Your task to perform on an android device: visit the assistant section in the google photos Image 0: 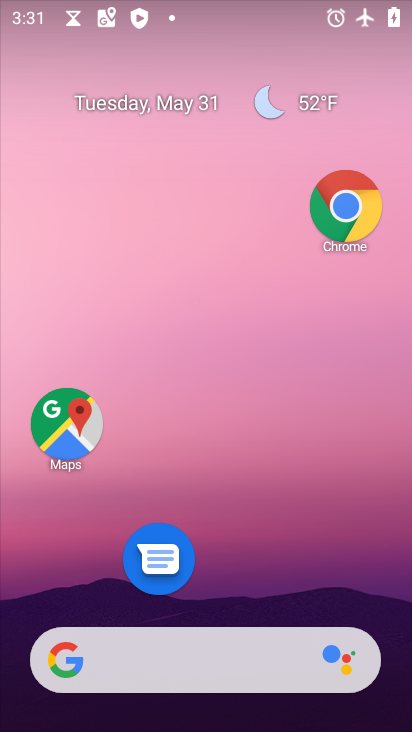
Step 0: drag from (25, 567) to (217, 116)
Your task to perform on an android device: visit the assistant section in the google photos Image 1: 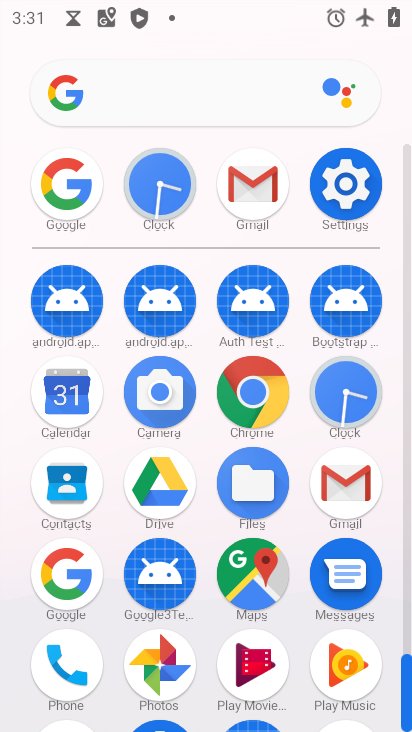
Step 1: click (150, 658)
Your task to perform on an android device: visit the assistant section in the google photos Image 2: 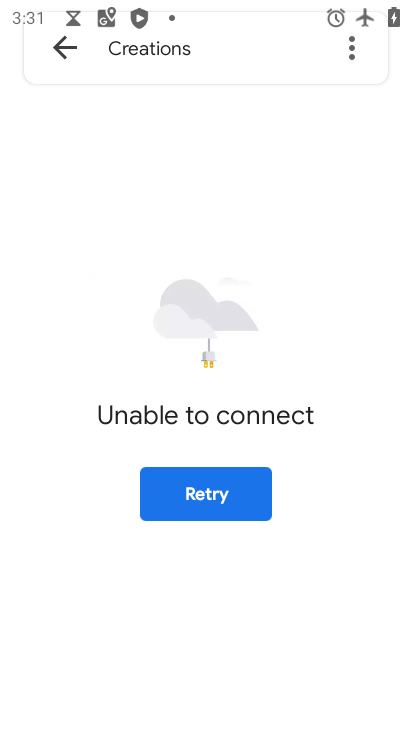
Step 2: click (198, 483)
Your task to perform on an android device: visit the assistant section in the google photos Image 3: 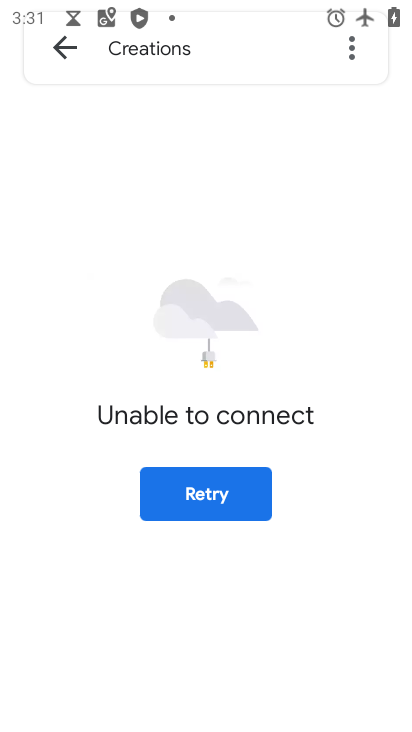
Step 3: click (69, 58)
Your task to perform on an android device: visit the assistant section in the google photos Image 4: 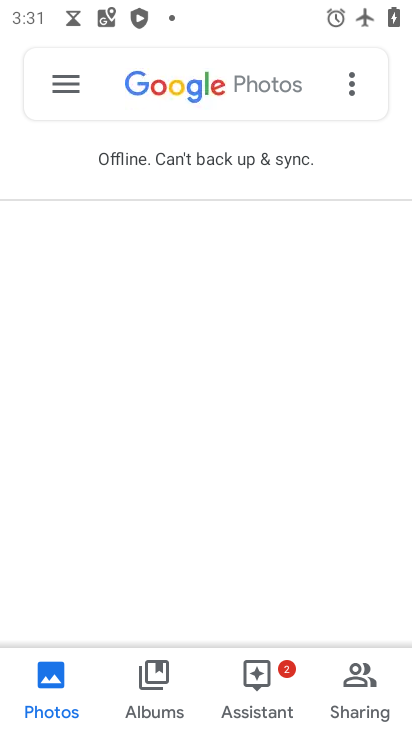
Step 4: click (263, 691)
Your task to perform on an android device: visit the assistant section in the google photos Image 5: 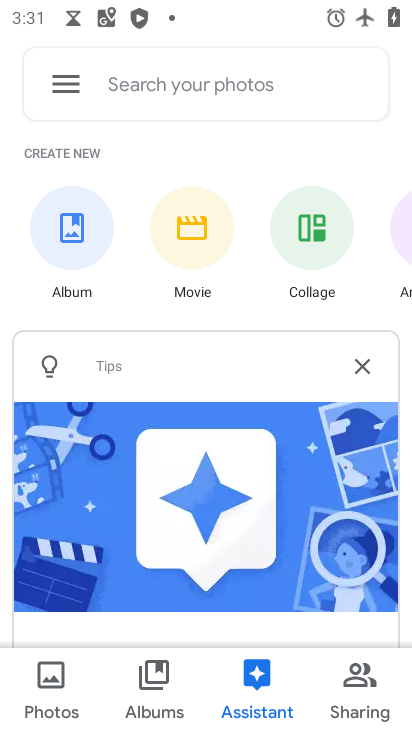
Step 5: task complete